Your task to perform on an android device: Play the last video I watched on Youtube Image 0: 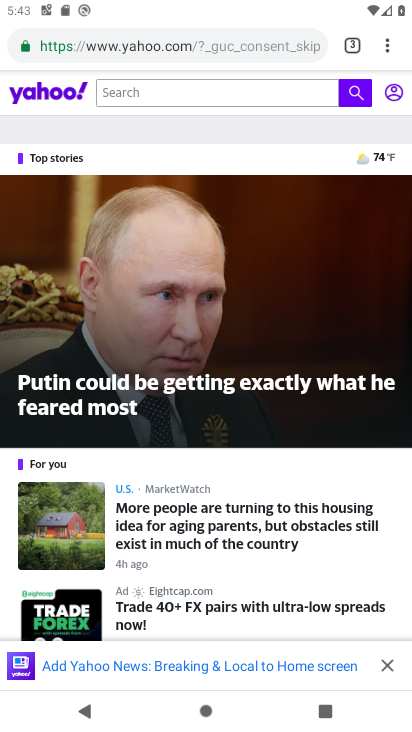
Step 0: press home button
Your task to perform on an android device: Play the last video I watched on Youtube Image 1: 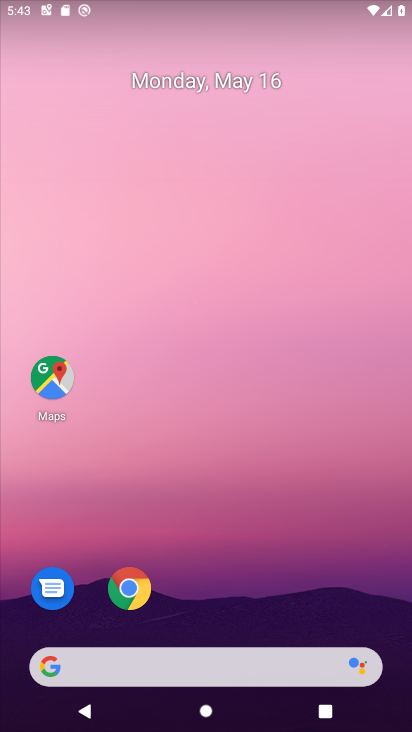
Step 1: drag from (291, 587) to (174, 39)
Your task to perform on an android device: Play the last video I watched on Youtube Image 2: 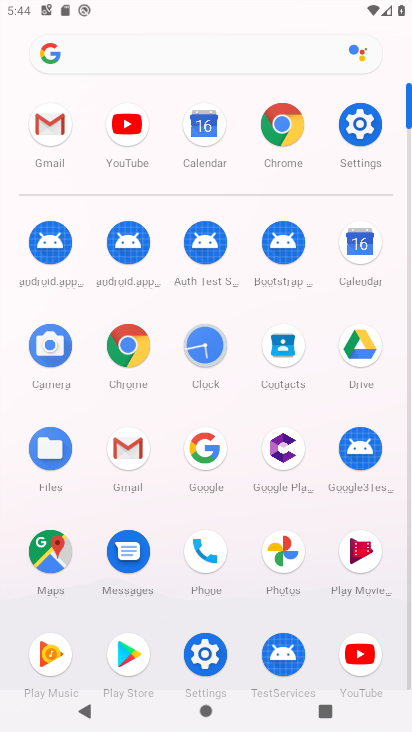
Step 2: click (365, 659)
Your task to perform on an android device: Play the last video I watched on Youtube Image 3: 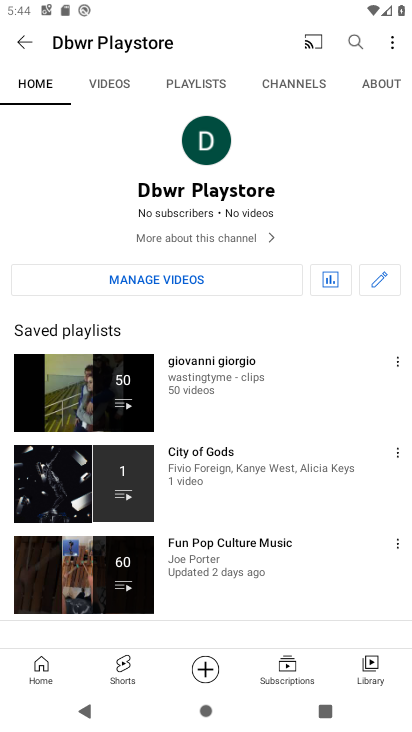
Step 3: click (372, 680)
Your task to perform on an android device: Play the last video I watched on Youtube Image 4: 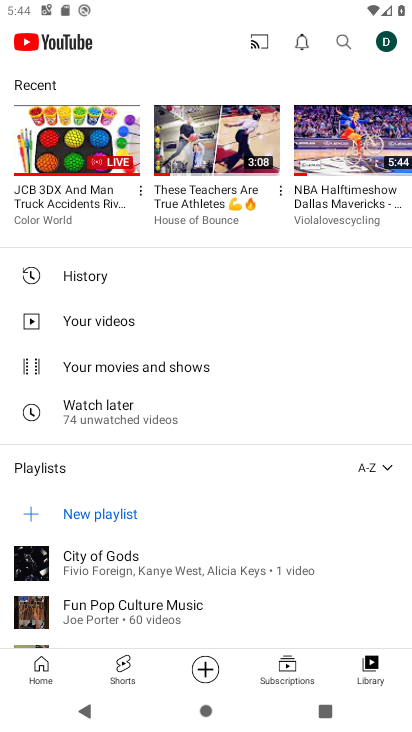
Step 4: click (67, 131)
Your task to perform on an android device: Play the last video I watched on Youtube Image 5: 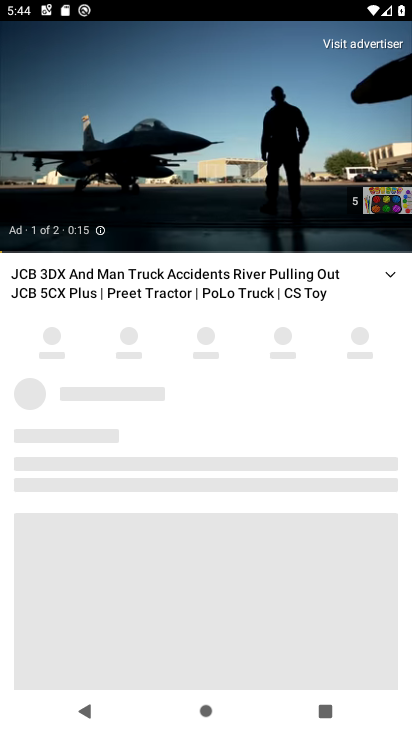
Step 5: task complete